Your task to perform on an android device: Search for Mexican restaurants on Maps Image 0: 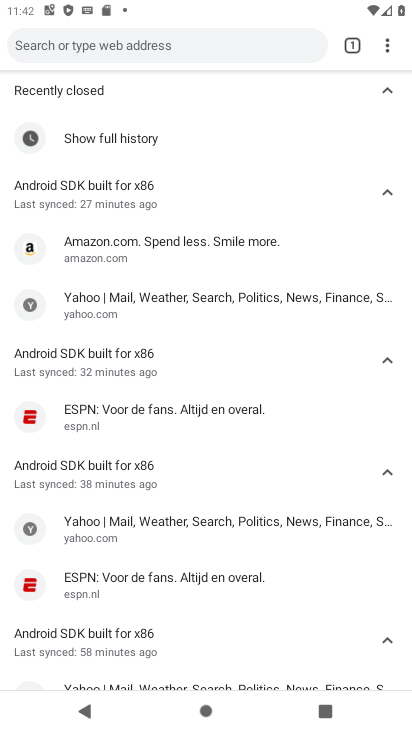
Step 0: press home button
Your task to perform on an android device: Search for Mexican restaurants on Maps Image 1: 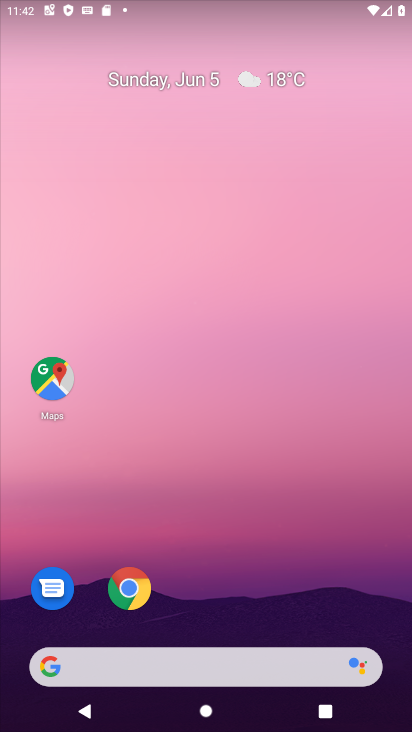
Step 1: click (61, 391)
Your task to perform on an android device: Search for Mexican restaurants on Maps Image 2: 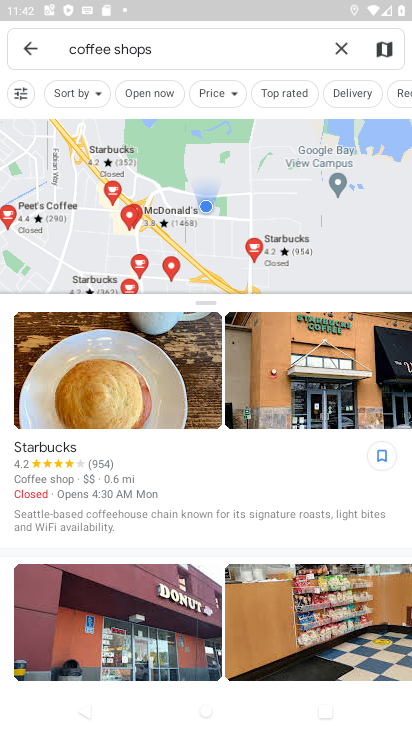
Step 2: click (343, 43)
Your task to perform on an android device: Search for Mexican restaurants on Maps Image 3: 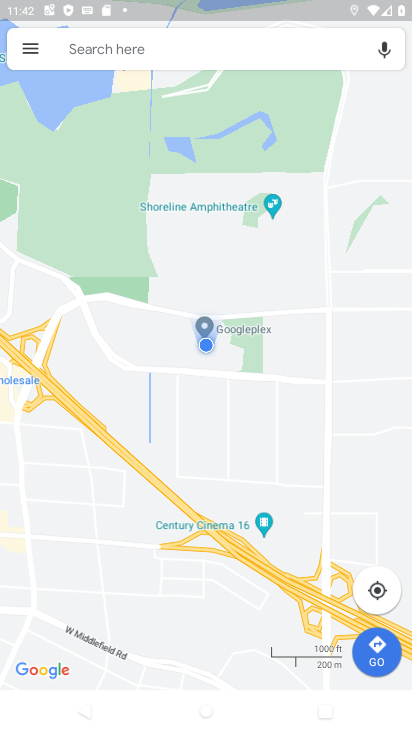
Step 3: click (190, 56)
Your task to perform on an android device: Search for Mexican restaurants on Maps Image 4: 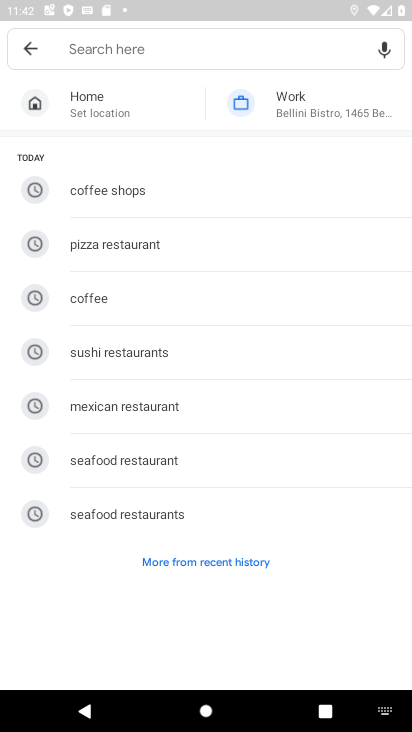
Step 4: click (238, 410)
Your task to perform on an android device: Search for Mexican restaurants on Maps Image 5: 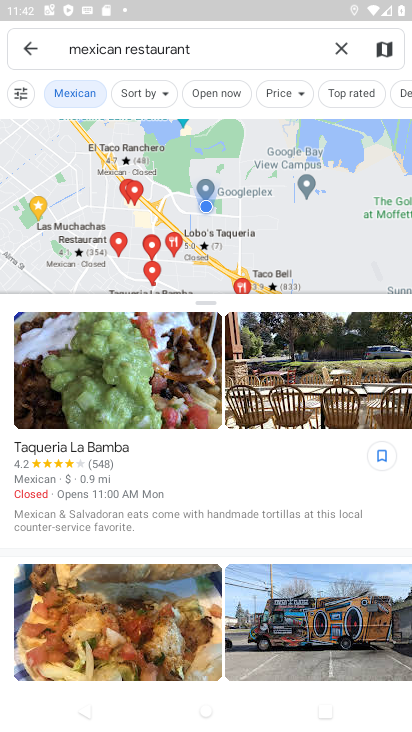
Step 5: task complete